Your task to perform on an android device: change the clock display to digital Image 0: 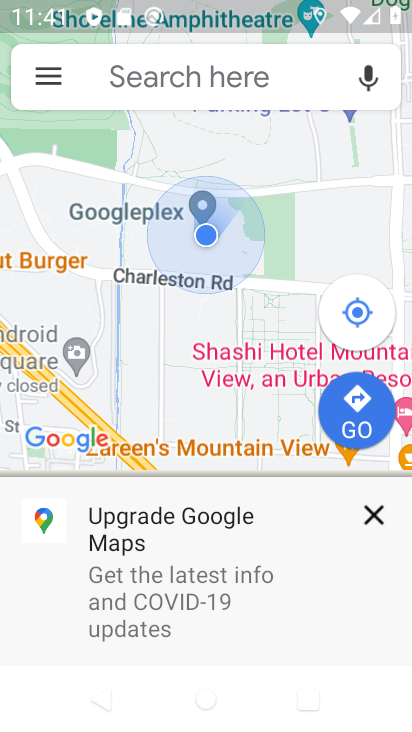
Step 0: press home button
Your task to perform on an android device: change the clock display to digital Image 1: 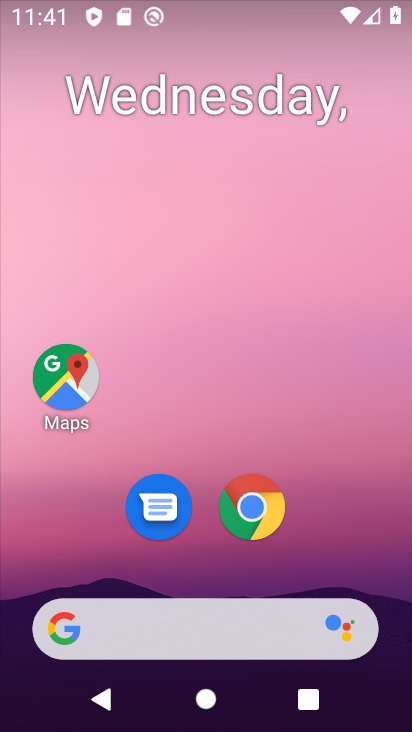
Step 1: drag from (202, 580) to (57, 50)
Your task to perform on an android device: change the clock display to digital Image 2: 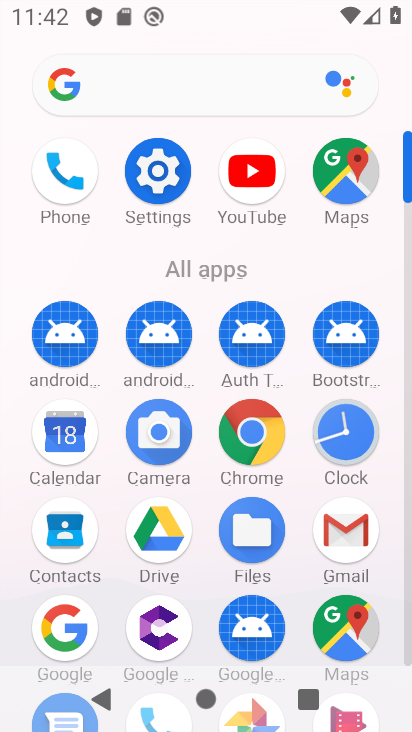
Step 2: click (345, 434)
Your task to perform on an android device: change the clock display to digital Image 3: 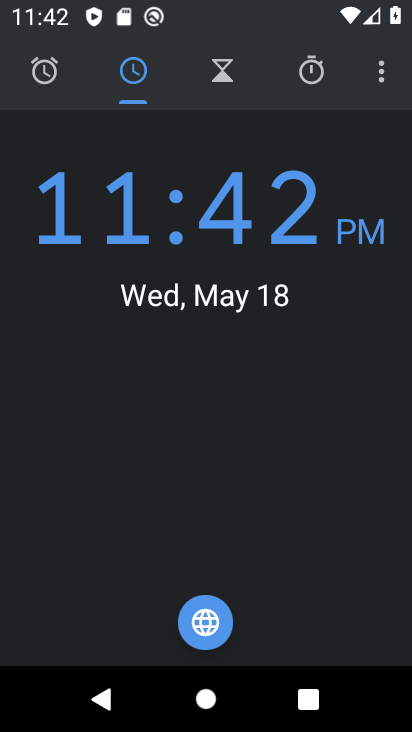
Step 3: click (379, 71)
Your task to perform on an android device: change the clock display to digital Image 4: 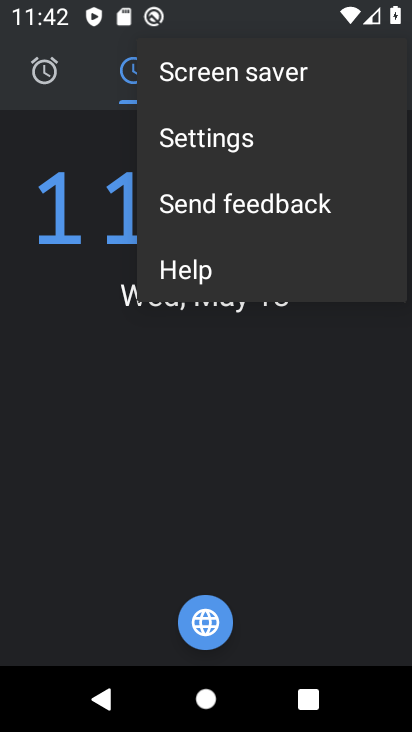
Step 4: click (215, 140)
Your task to perform on an android device: change the clock display to digital Image 5: 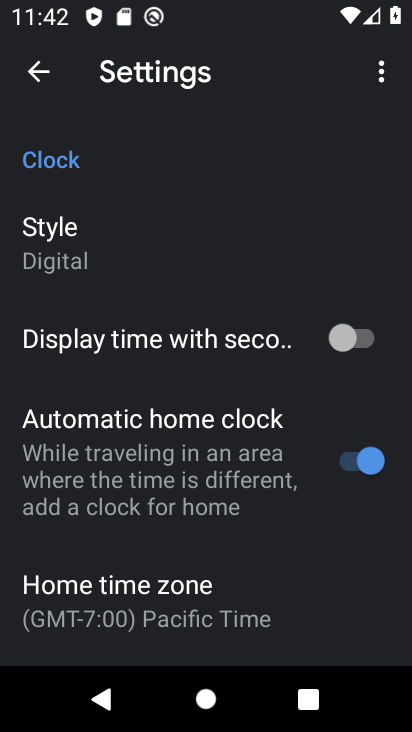
Step 5: task complete